Your task to perform on an android device: uninstall "Google Docs" Image 0: 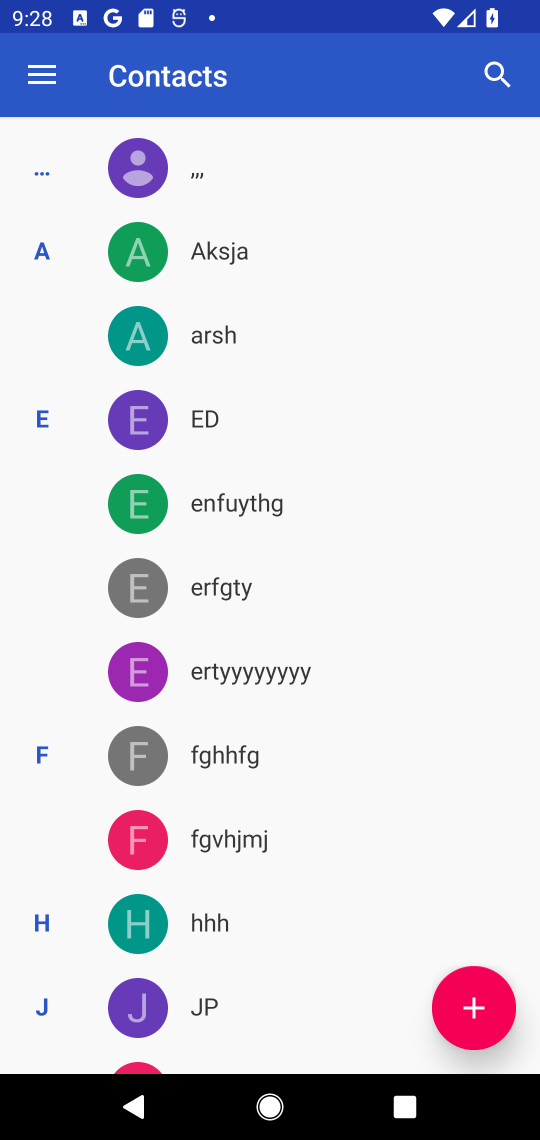
Step 0: press home button
Your task to perform on an android device: uninstall "Google Docs" Image 1: 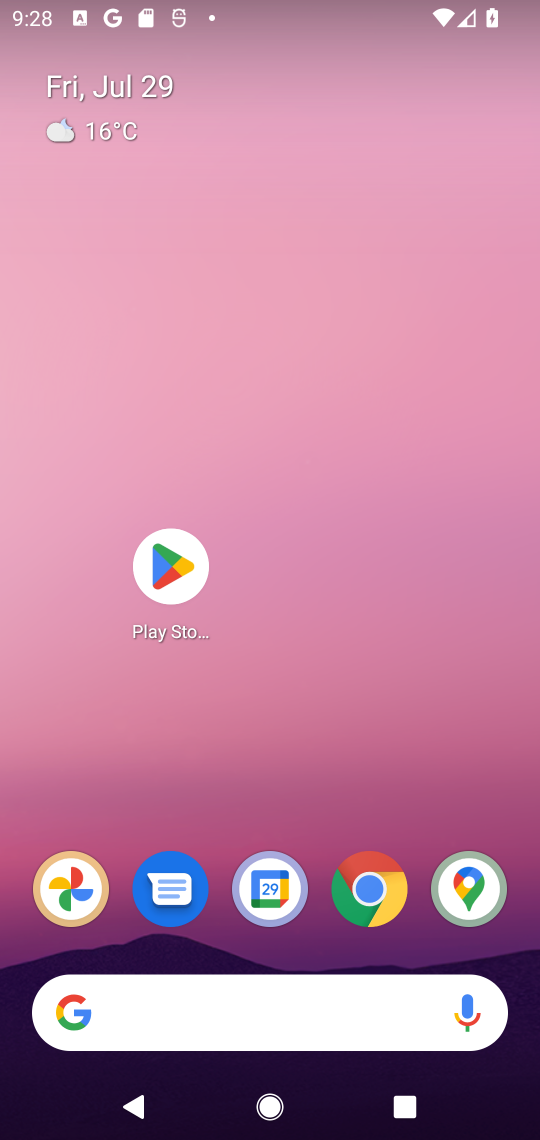
Step 1: click (162, 579)
Your task to perform on an android device: uninstall "Google Docs" Image 2: 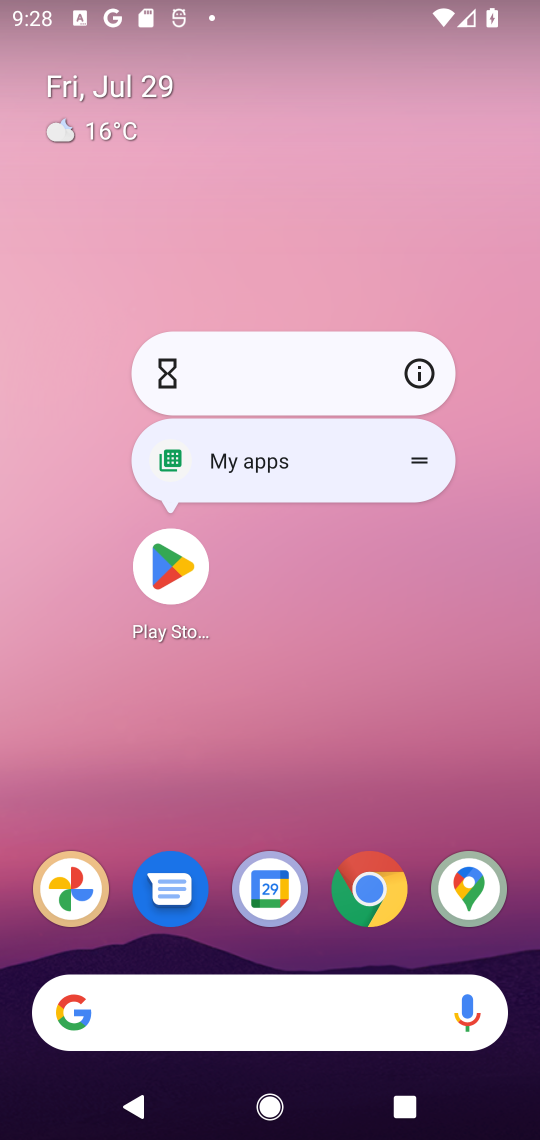
Step 2: click (162, 581)
Your task to perform on an android device: uninstall "Google Docs" Image 3: 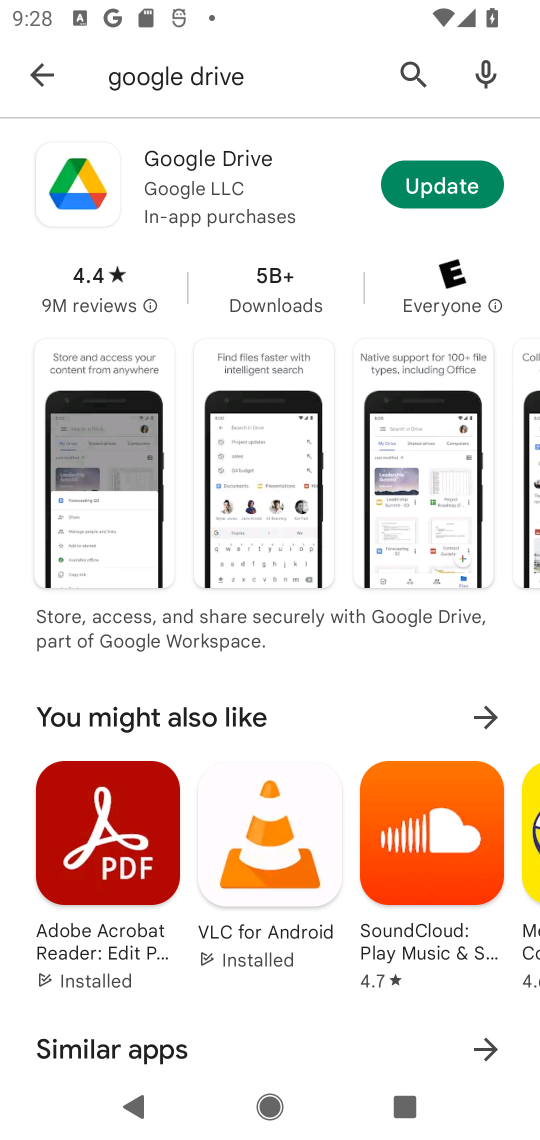
Step 3: click (404, 70)
Your task to perform on an android device: uninstall "Google Docs" Image 4: 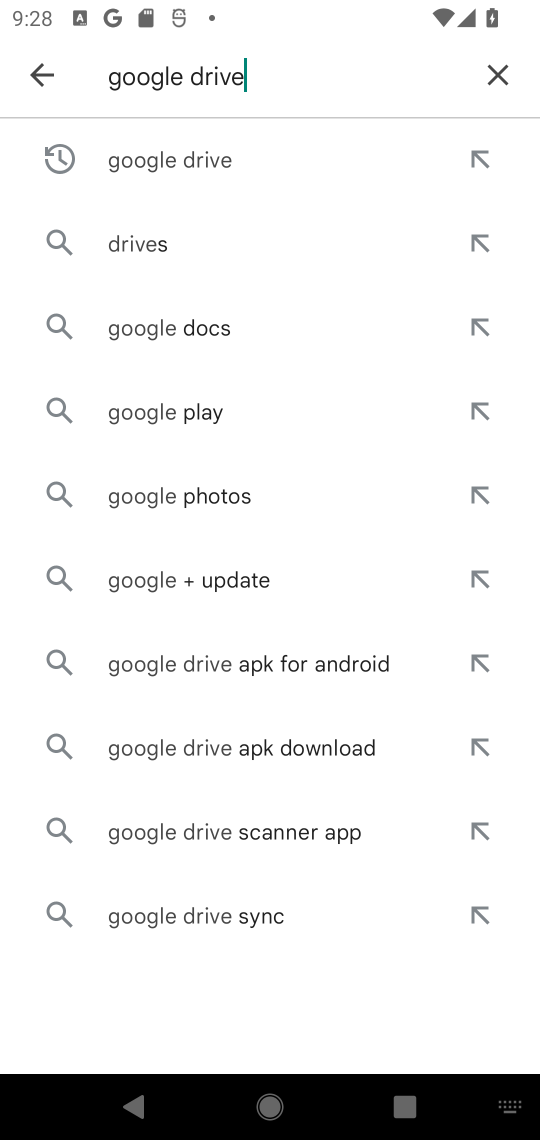
Step 4: click (496, 65)
Your task to perform on an android device: uninstall "Google Docs" Image 5: 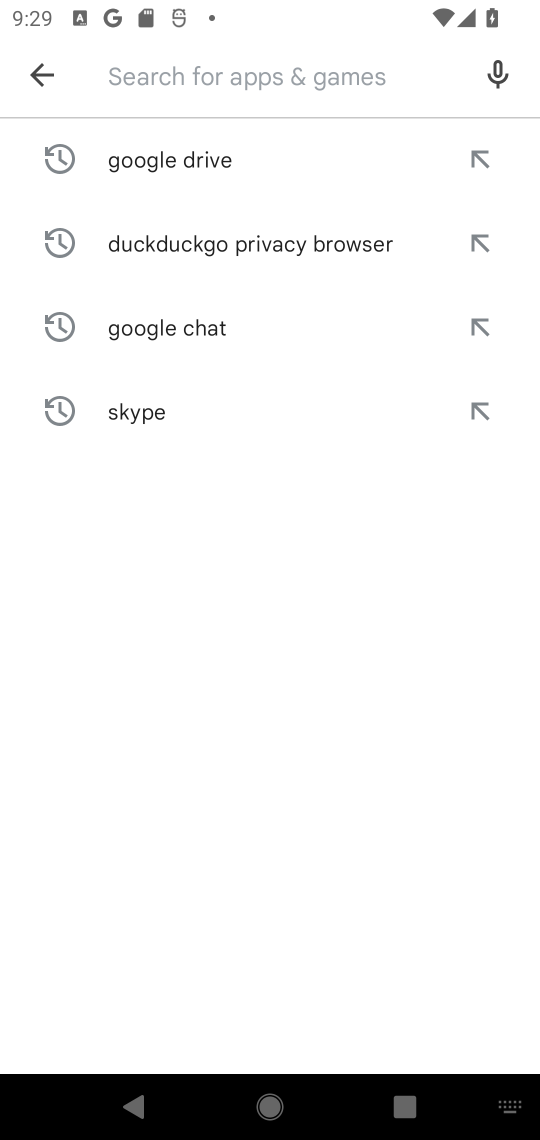
Step 5: type "Google Docs"
Your task to perform on an android device: uninstall "Google Docs" Image 6: 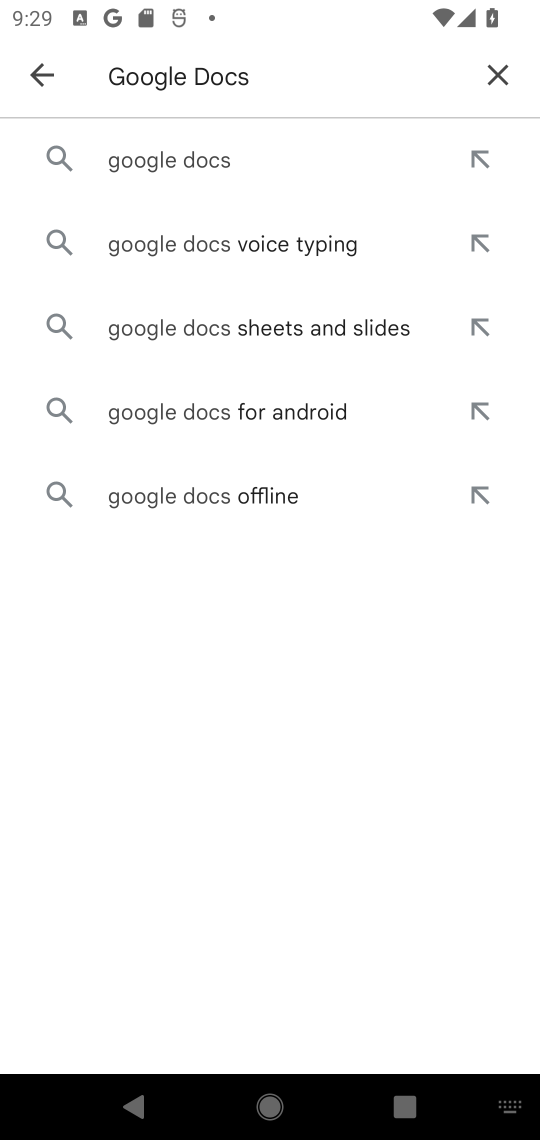
Step 6: click (171, 168)
Your task to perform on an android device: uninstall "Google Docs" Image 7: 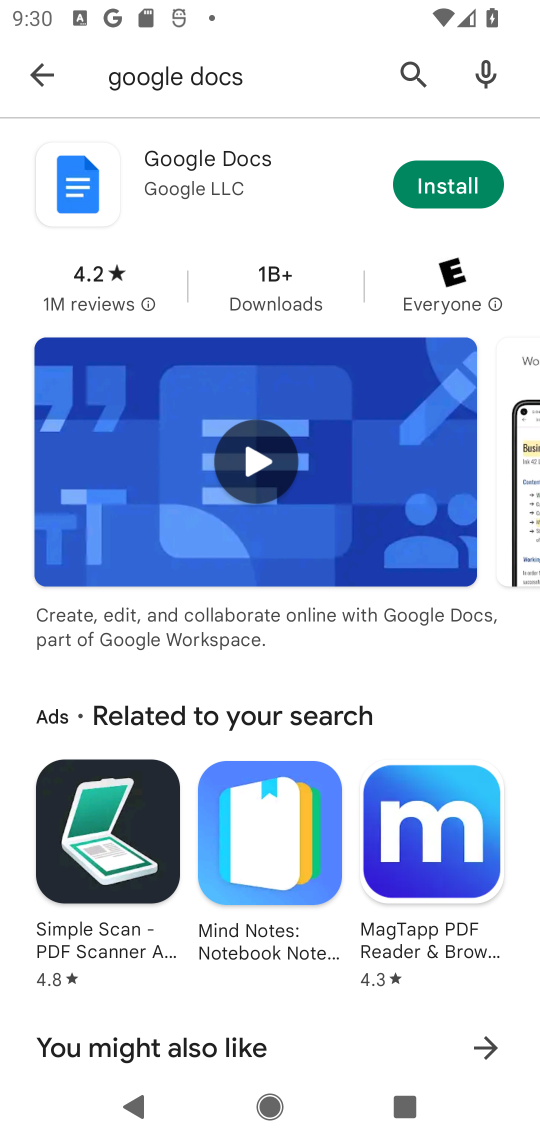
Step 7: task complete